Your task to perform on an android device: Open location settings Image 0: 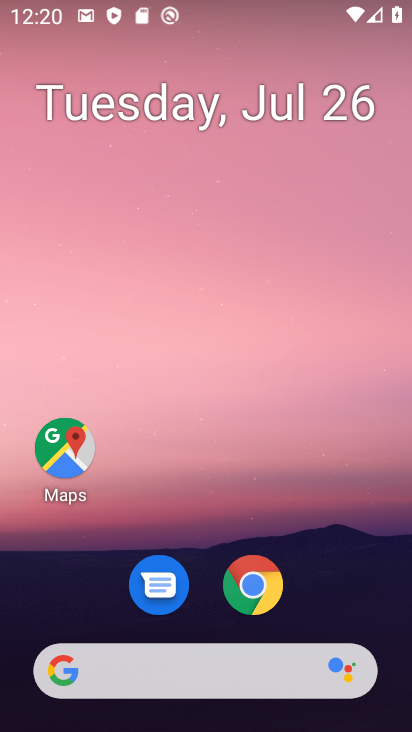
Step 0: press home button
Your task to perform on an android device: Open location settings Image 1: 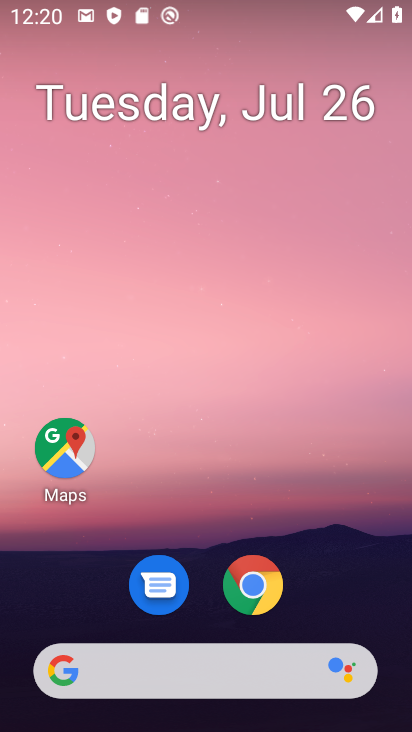
Step 1: drag from (208, 658) to (342, 172)
Your task to perform on an android device: Open location settings Image 2: 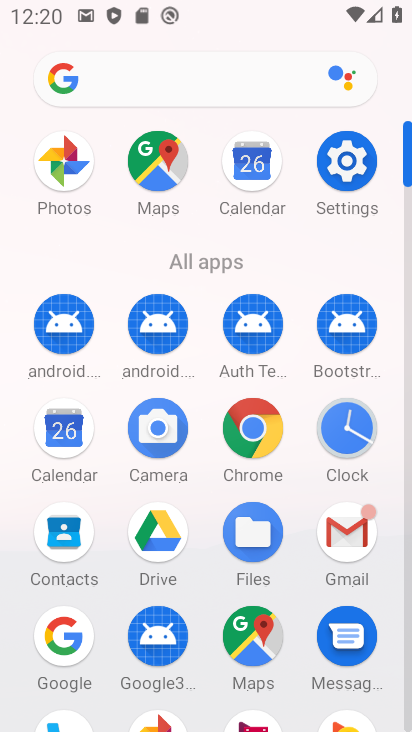
Step 2: click (343, 174)
Your task to perform on an android device: Open location settings Image 3: 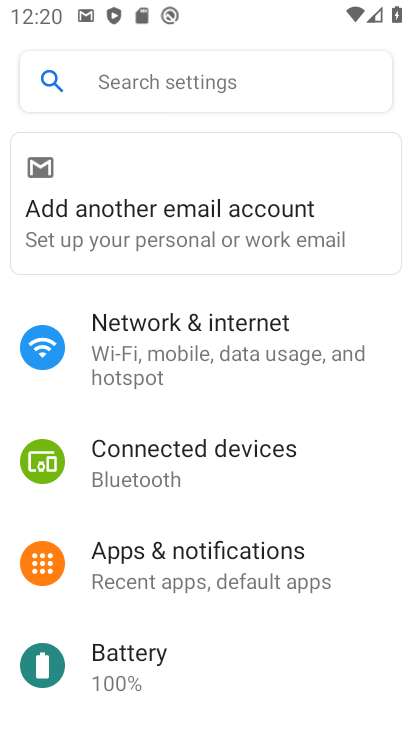
Step 3: drag from (249, 635) to (331, 197)
Your task to perform on an android device: Open location settings Image 4: 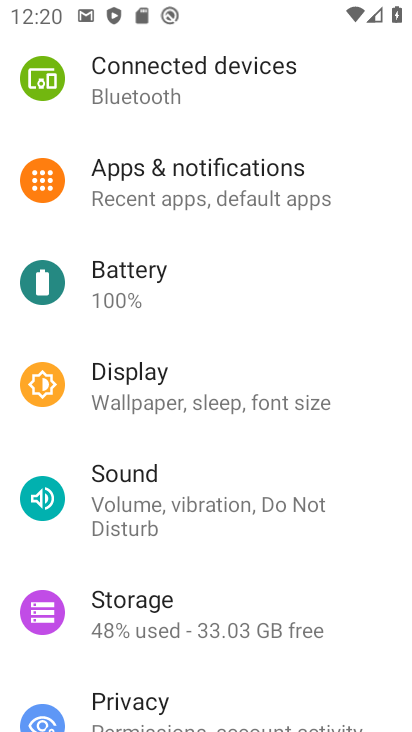
Step 4: drag from (223, 652) to (339, 140)
Your task to perform on an android device: Open location settings Image 5: 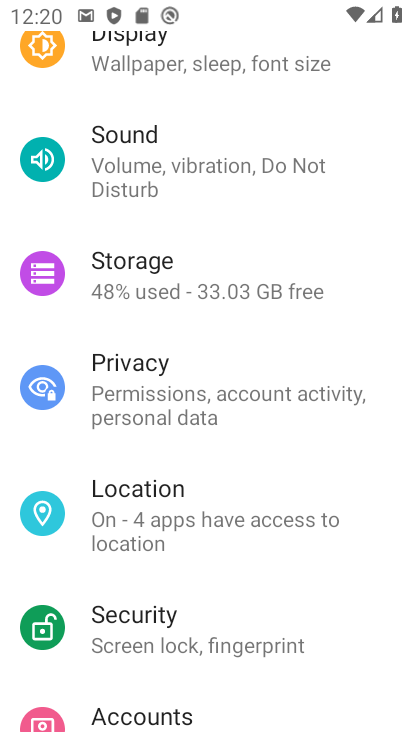
Step 5: click (169, 513)
Your task to perform on an android device: Open location settings Image 6: 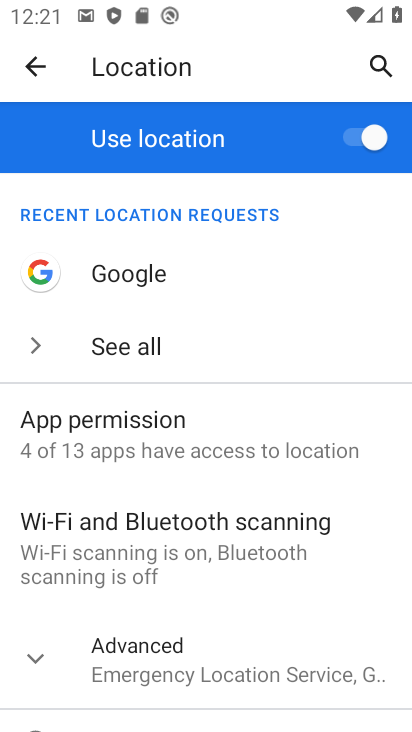
Step 6: task complete